Your task to perform on an android device: Open Google Image 0: 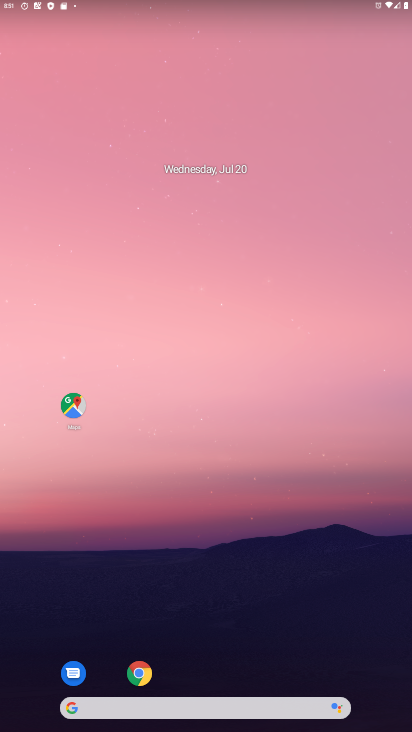
Step 0: drag from (233, 337) to (254, 119)
Your task to perform on an android device: Open Google Image 1: 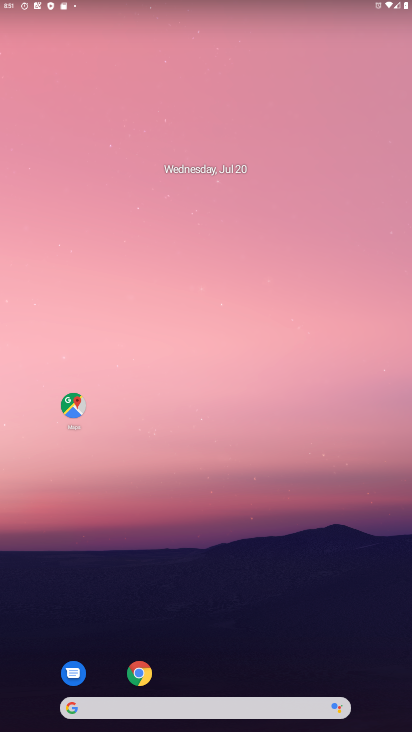
Step 1: drag from (221, 660) to (236, 103)
Your task to perform on an android device: Open Google Image 2: 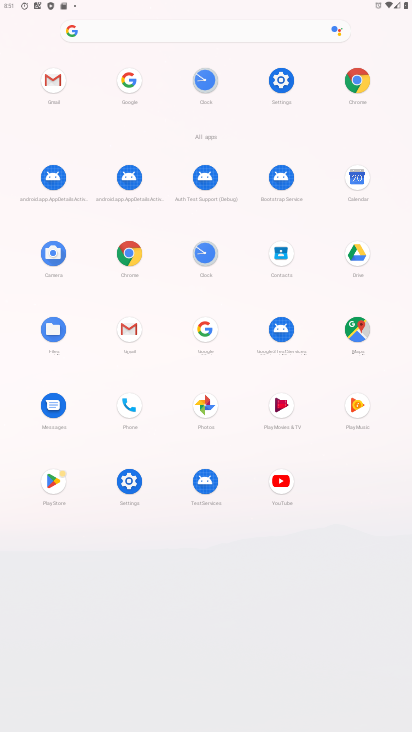
Step 2: click (129, 81)
Your task to perform on an android device: Open Google Image 3: 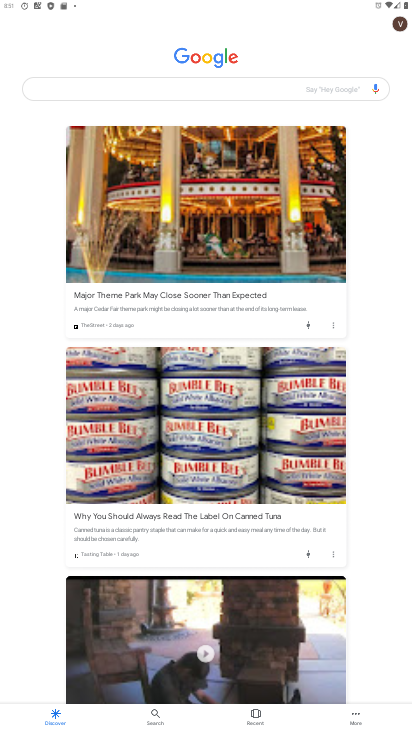
Step 3: task complete